Your task to perform on an android device: turn on showing notifications on the lock screen Image 0: 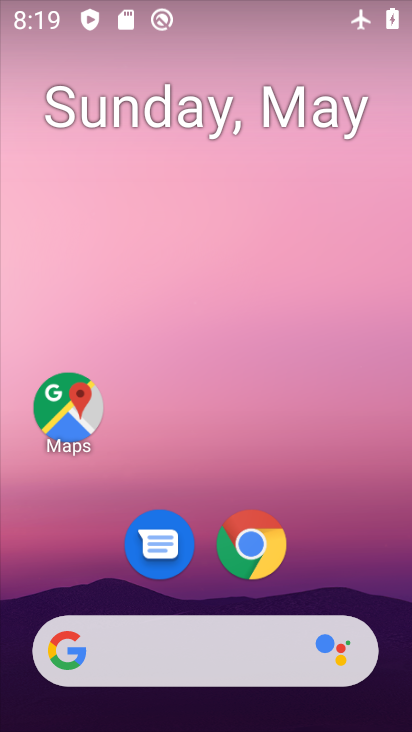
Step 0: drag from (332, 512) to (266, 29)
Your task to perform on an android device: turn on showing notifications on the lock screen Image 1: 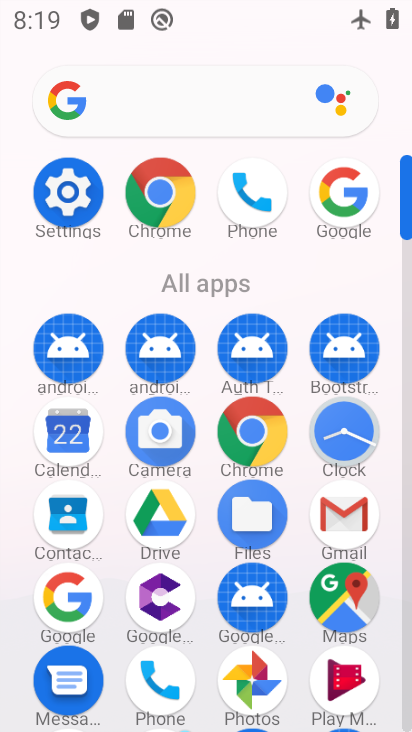
Step 1: drag from (12, 536) to (21, 227)
Your task to perform on an android device: turn on showing notifications on the lock screen Image 2: 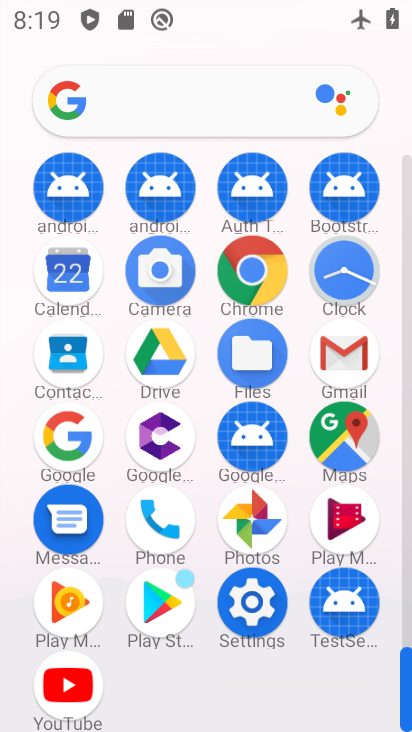
Step 2: click (255, 598)
Your task to perform on an android device: turn on showing notifications on the lock screen Image 3: 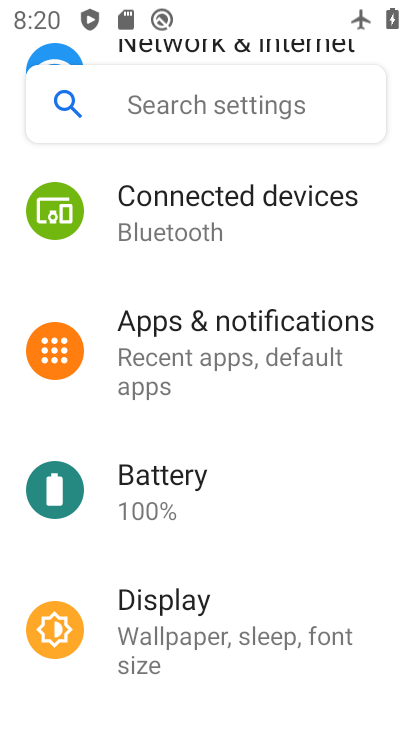
Step 3: click (244, 309)
Your task to perform on an android device: turn on showing notifications on the lock screen Image 4: 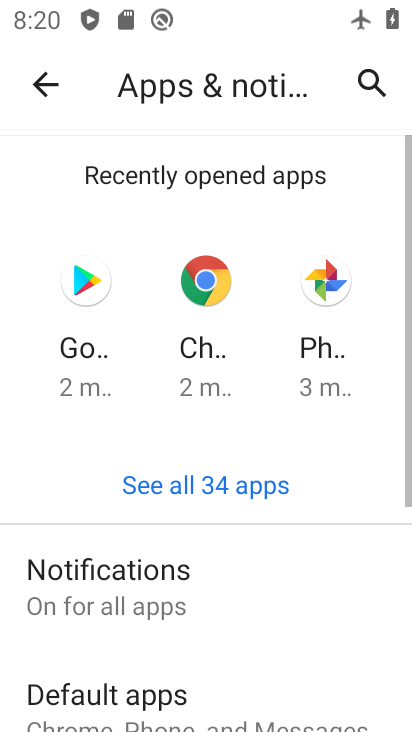
Step 4: click (211, 600)
Your task to perform on an android device: turn on showing notifications on the lock screen Image 5: 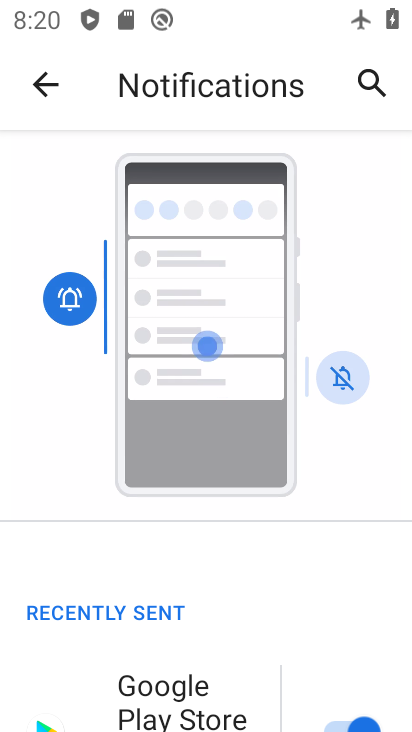
Step 5: drag from (94, 645) to (97, 162)
Your task to perform on an android device: turn on showing notifications on the lock screen Image 6: 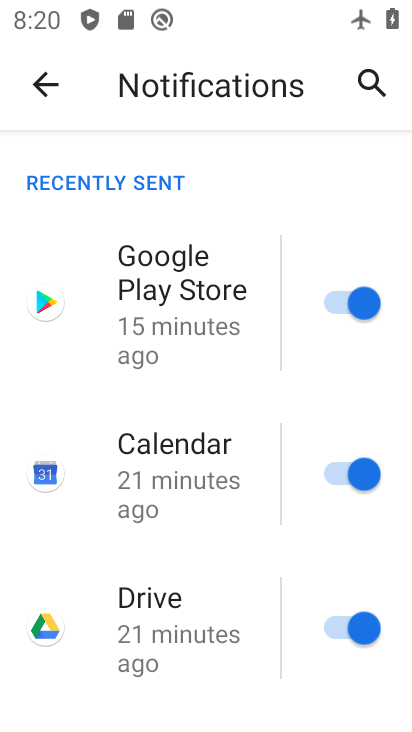
Step 6: drag from (109, 611) to (173, 186)
Your task to perform on an android device: turn on showing notifications on the lock screen Image 7: 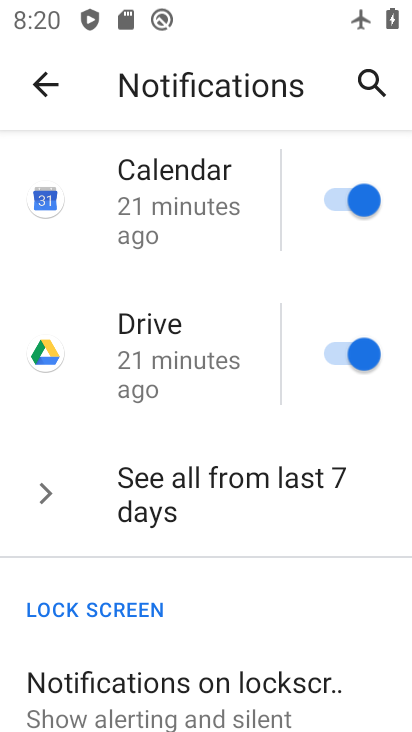
Step 7: drag from (193, 587) to (206, 208)
Your task to perform on an android device: turn on showing notifications on the lock screen Image 8: 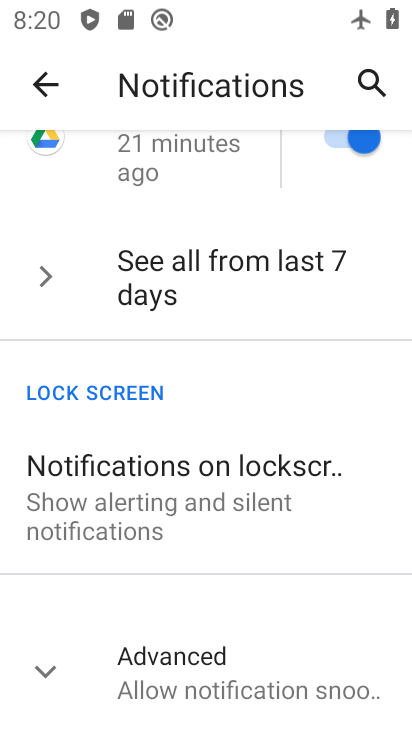
Step 8: click (50, 666)
Your task to perform on an android device: turn on showing notifications on the lock screen Image 9: 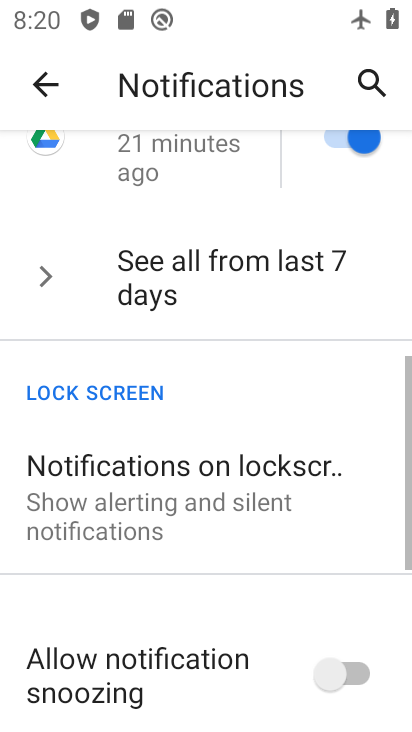
Step 9: drag from (158, 623) to (165, 200)
Your task to perform on an android device: turn on showing notifications on the lock screen Image 10: 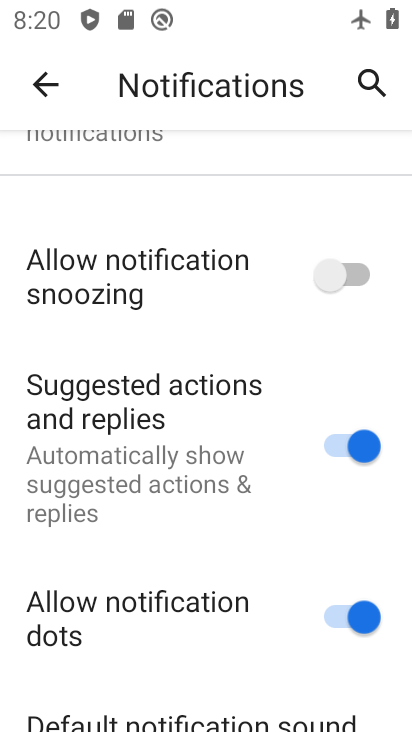
Step 10: drag from (164, 245) to (164, 561)
Your task to perform on an android device: turn on showing notifications on the lock screen Image 11: 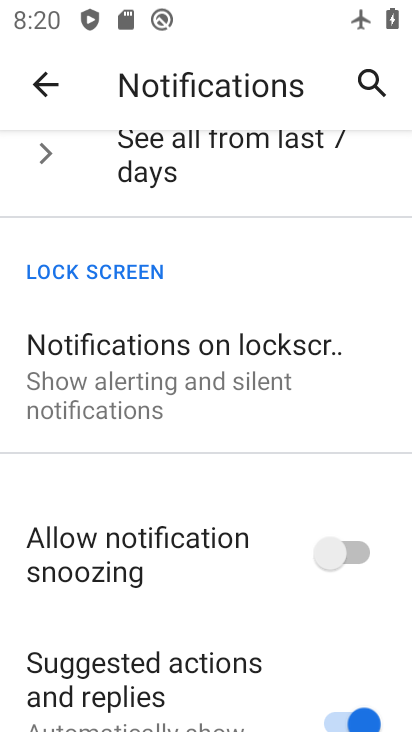
Step 11: click (161, 412)
Your task to perform on an android device: turn on showing notifications on the lock screen Image 12: 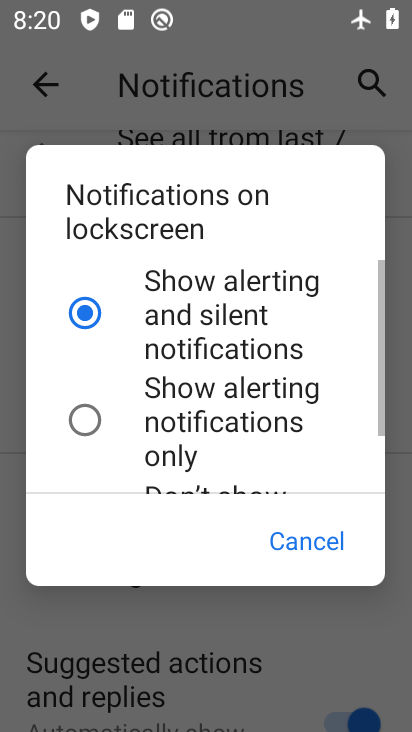
Step 12: click (180, 293)
Your task to perform on an android device: turn on showing notifications on the lock screen Image 13: 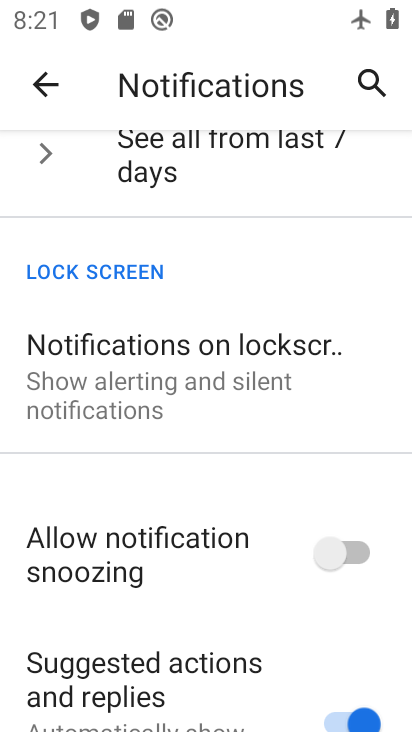
Step 13: task complete